Your task to perform on an android device: Go to ESPN.com Image 0: 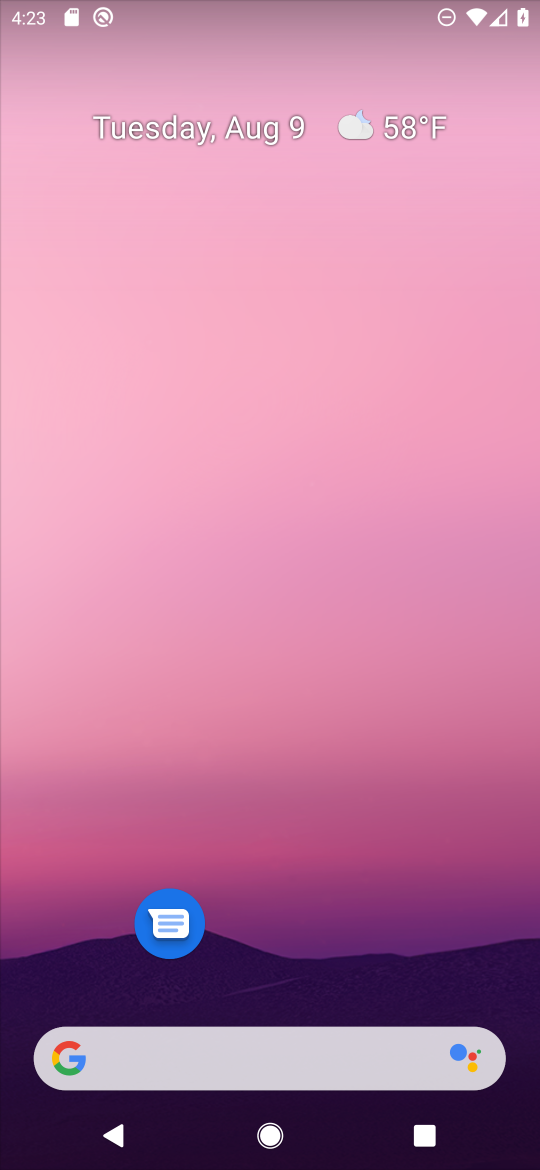
Step 0: drag from (263, 984) to (415, 2)
Your task to perform on an android device: Go to ESPN.com Image 1: 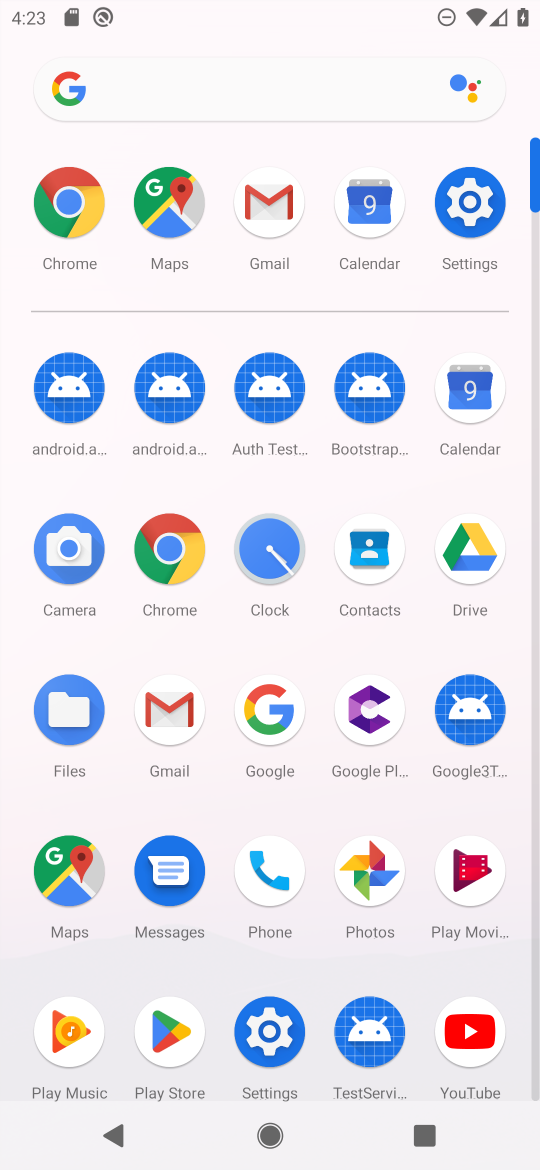
Step 1: click (162, 572)
Your task to perform on an android device: Go to ESPN.com Image 2: 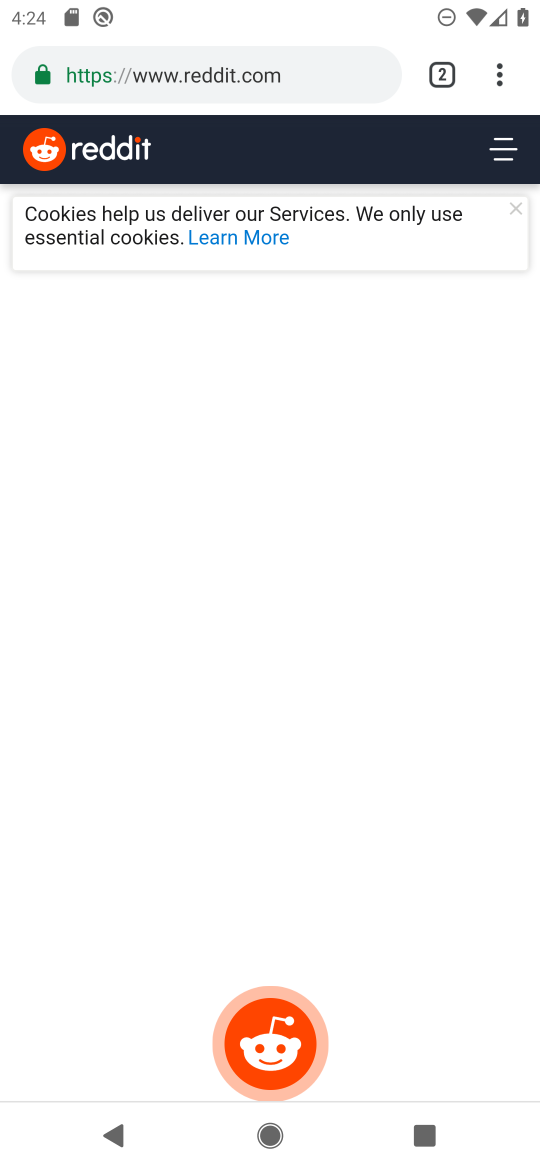
Step 2: click (438, 61)
Your task to perform on an android device: Go to ESPN.com Image 3: 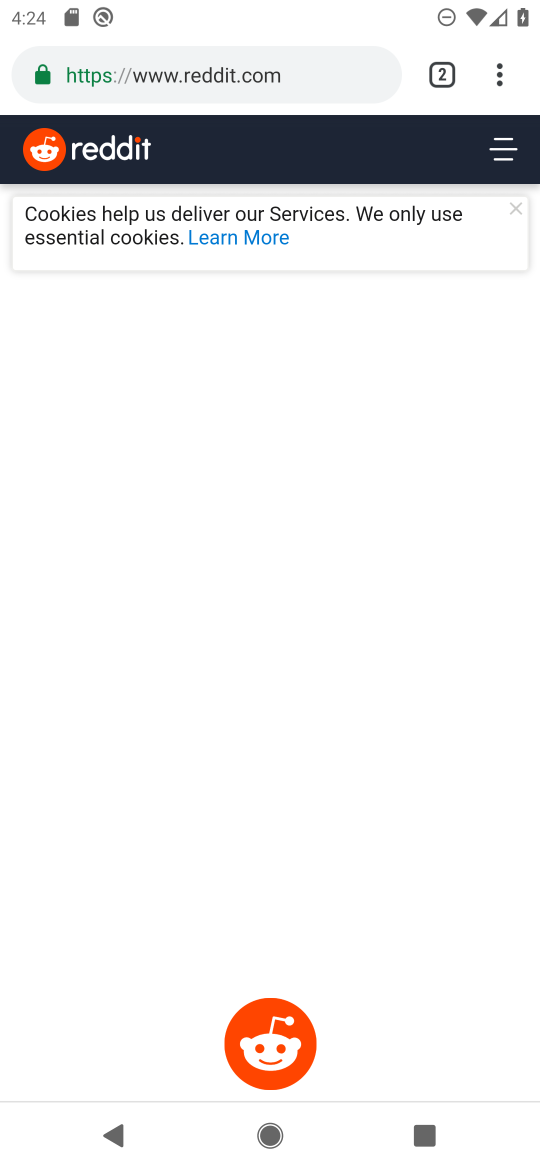
Step 3: click (448, 67)
Your task to perform on an android device: Go to ESPN.com Image 4: 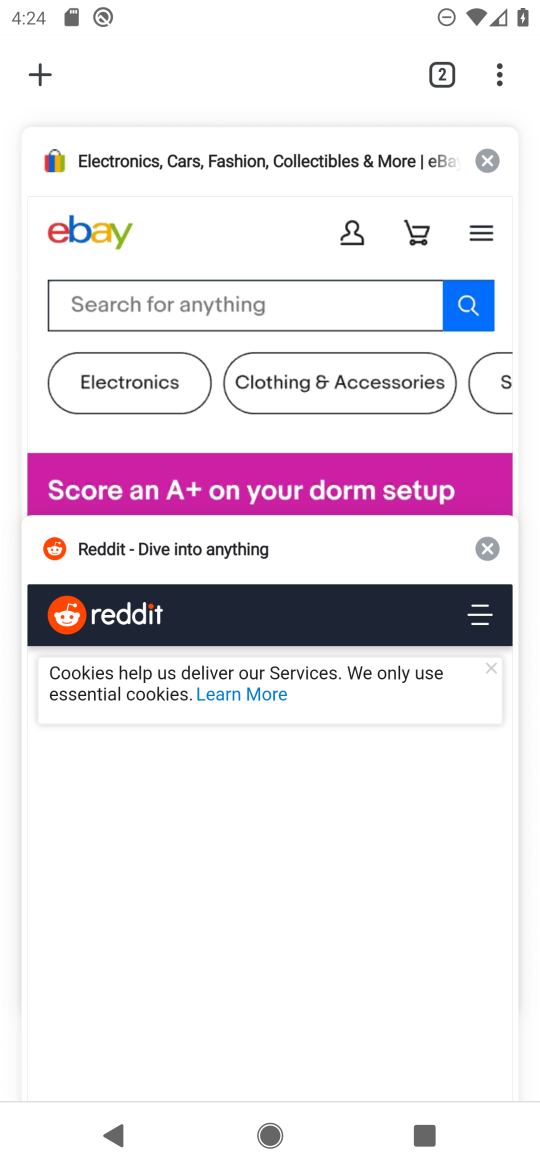
Step 4: click (48, 70)
Your task to perform on an android device: Go to ESPN.com Image 5: 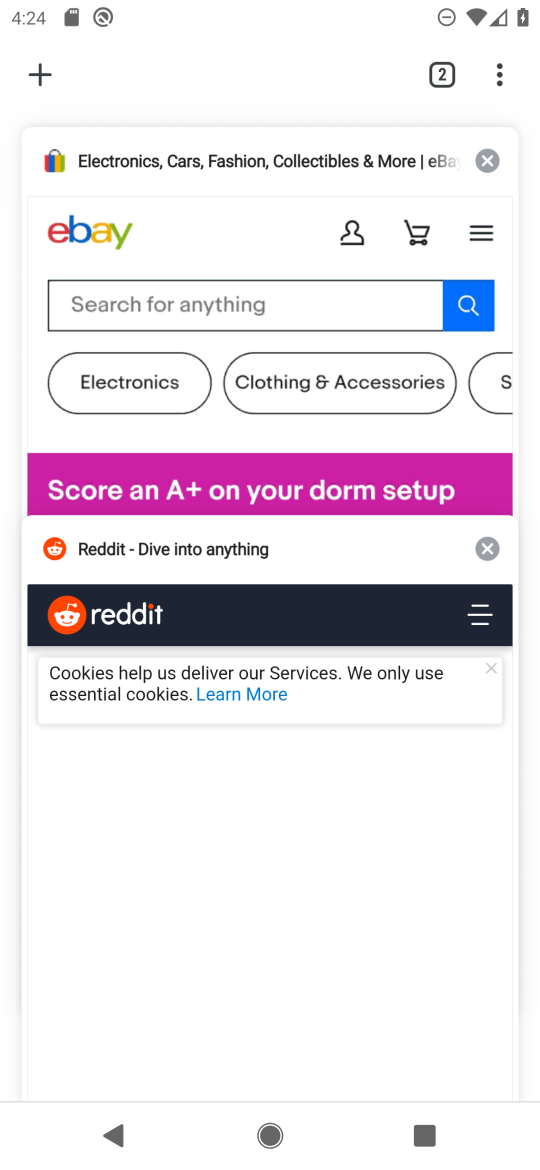
Step 5: click (43, 69)
Your task to perform on an android device: Go to ESPN.com Image 6: 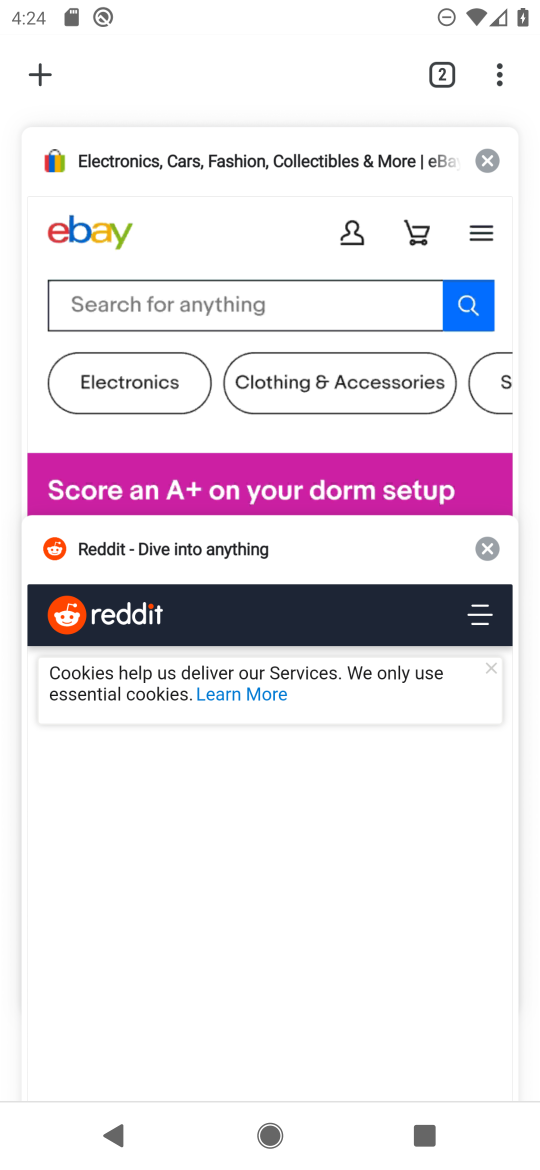
Step 6: click (41, 65)
Your task to perform on an android device: Go to ESPN.com Image 7: 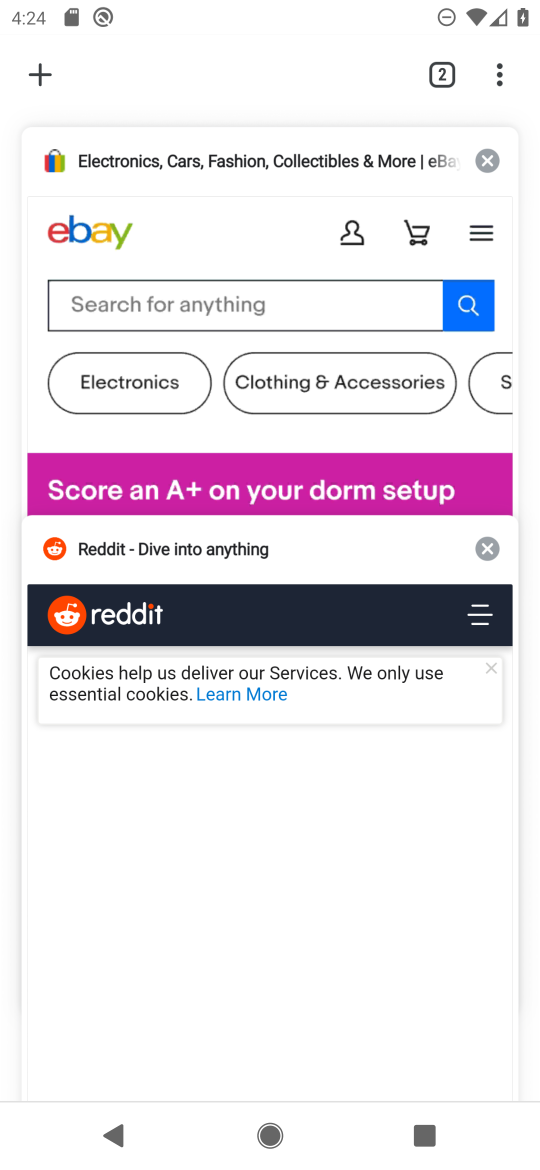
Step 7: click (32, 66)
Your task to perform on an android device: Go to ESPN.com Image 8: 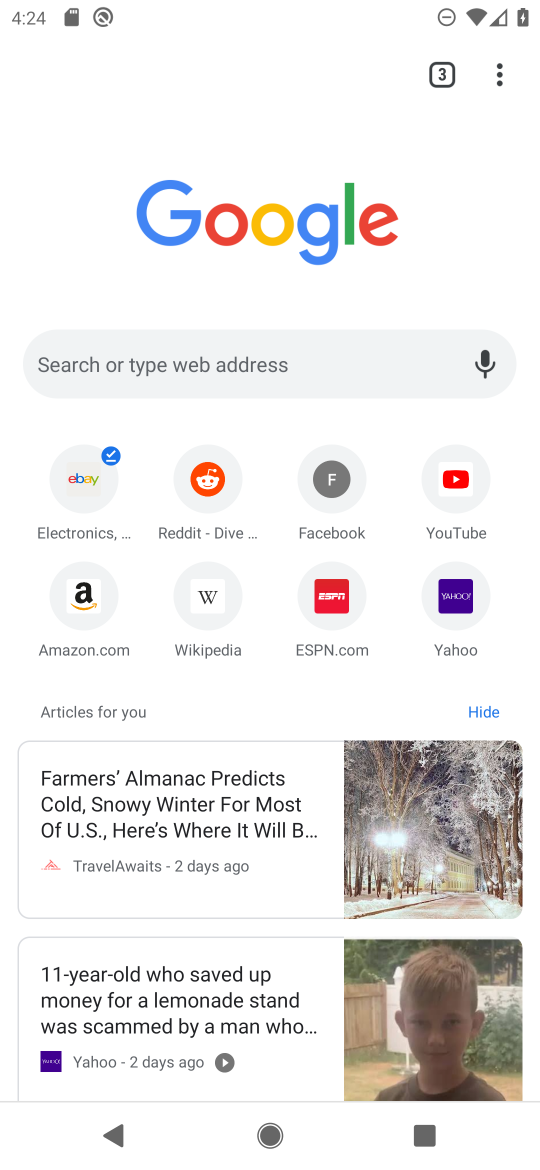
Step 8: click (329, 588)
Your task to perform on an android device: Go to ESPN.com Image 9: 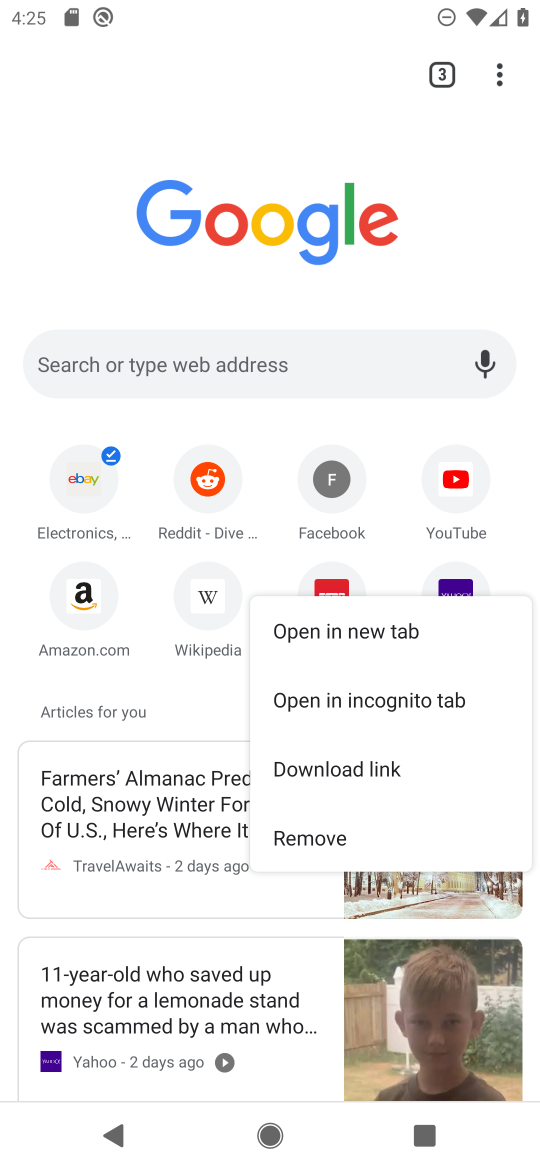
Step 9: click (161, 699)
Your task to perform on an android device: Go to ESPN.com Image 10: 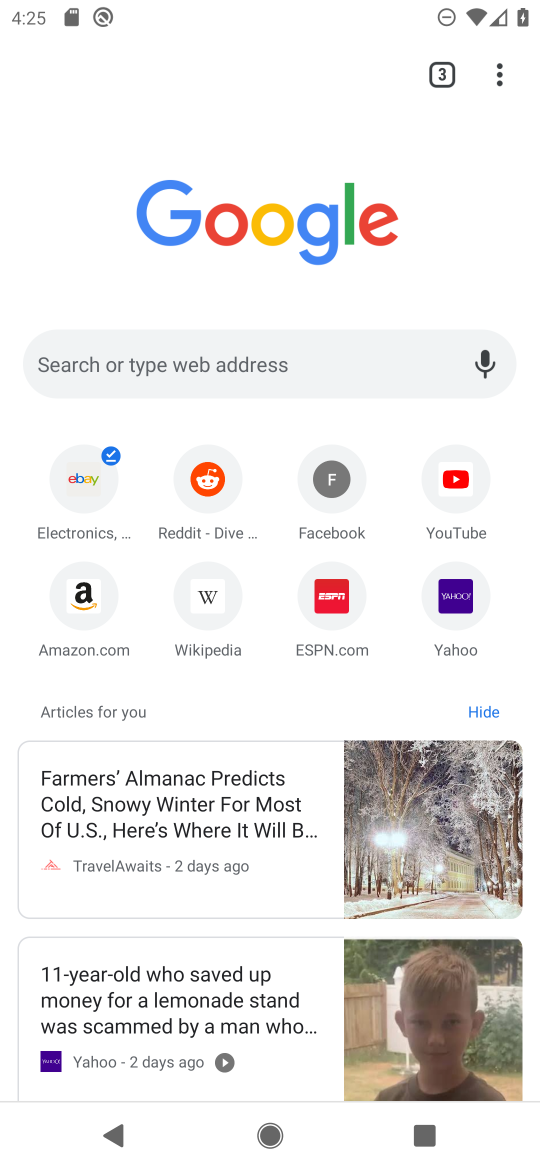
Step 10: click (316, 595)
Your task to perform on an android device: Go to ESPN.com Image 11: 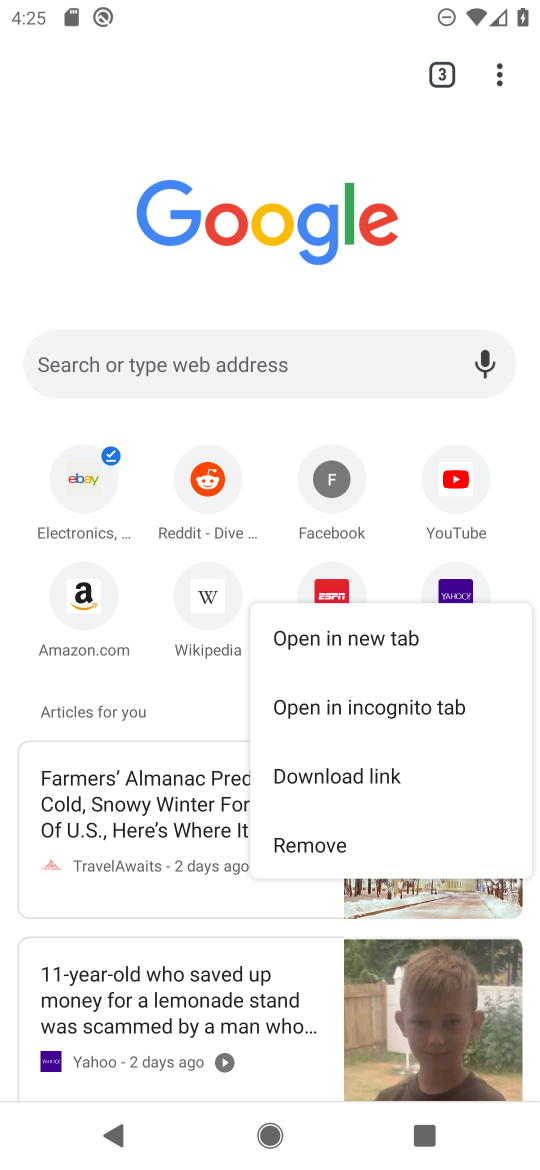
Step 11: click (316, 602)
Your task to perform on an android device: Go to ESPN.com Image 12: 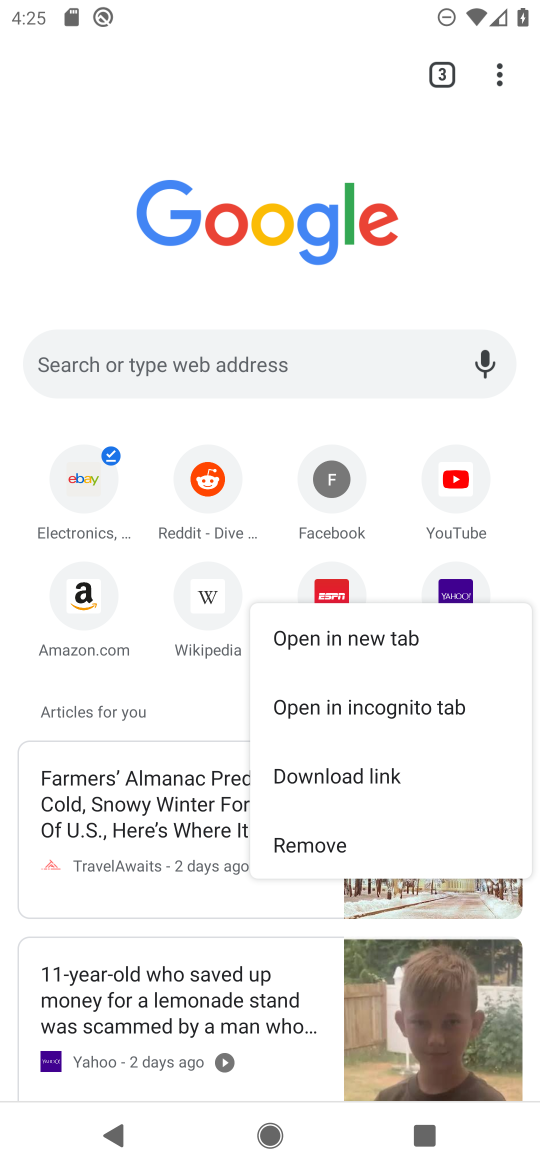
Step 12: click (333, 581)
Your task to perform on an android device: Go to ESPN.com Image 13: 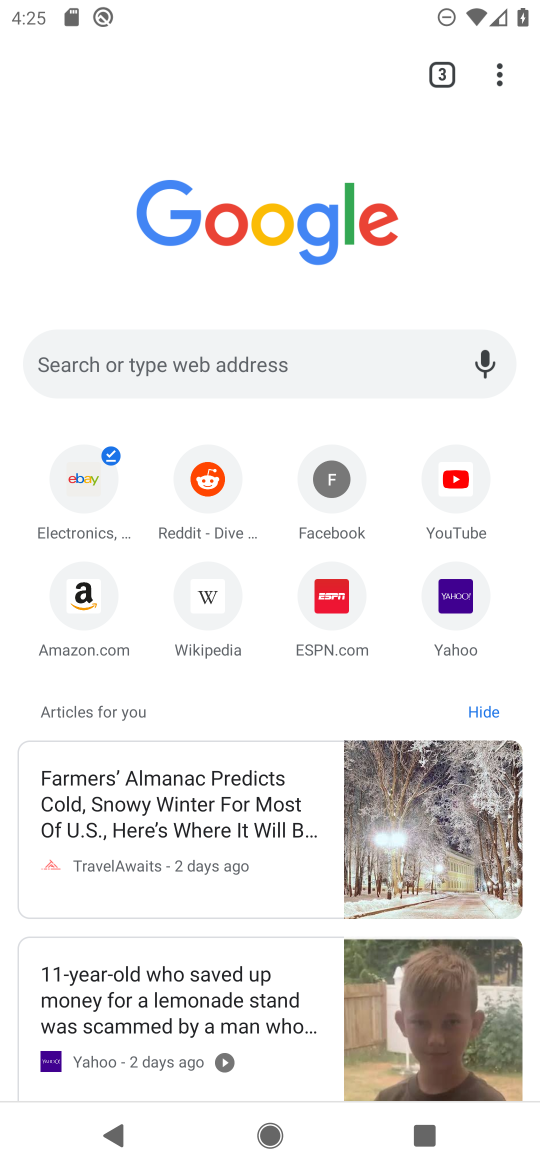
Step 13: click (333, 598)
Your task to perform on an android device: Go to ESPN.com Image 14: 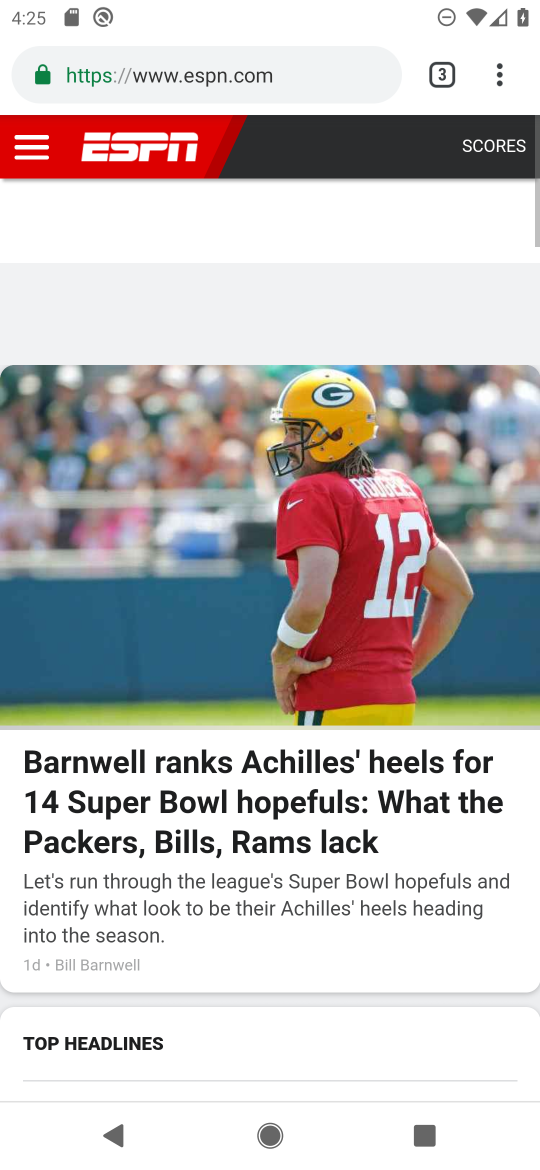
Step 14: task complete